Your task to perform on an android device: turn off wifi Image 0: 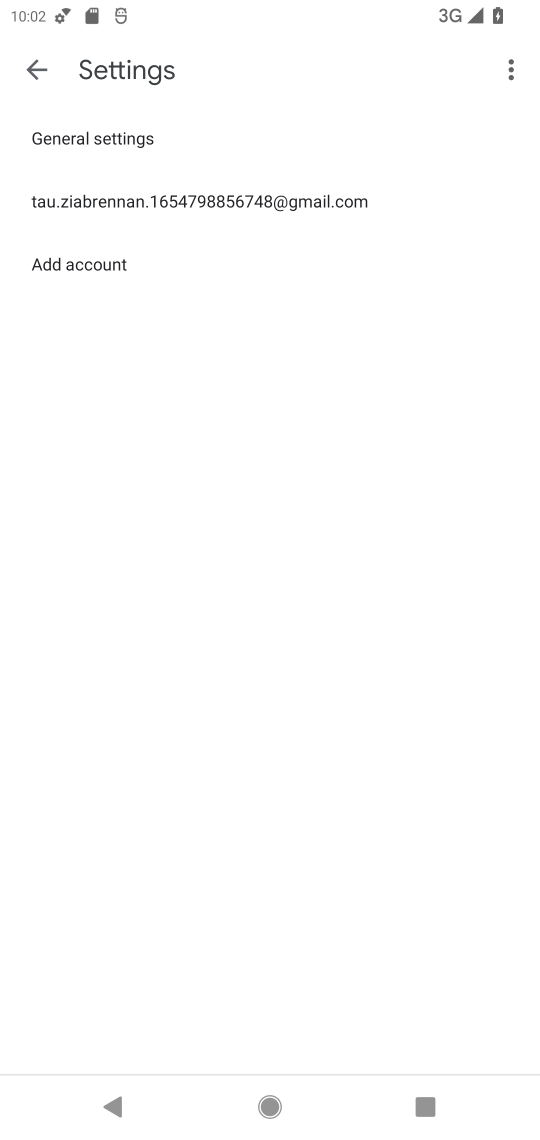
Step 0: drag from (236, 15) to (218, 1040)
Your task to perform on an android device: turn off wifi Image 1: 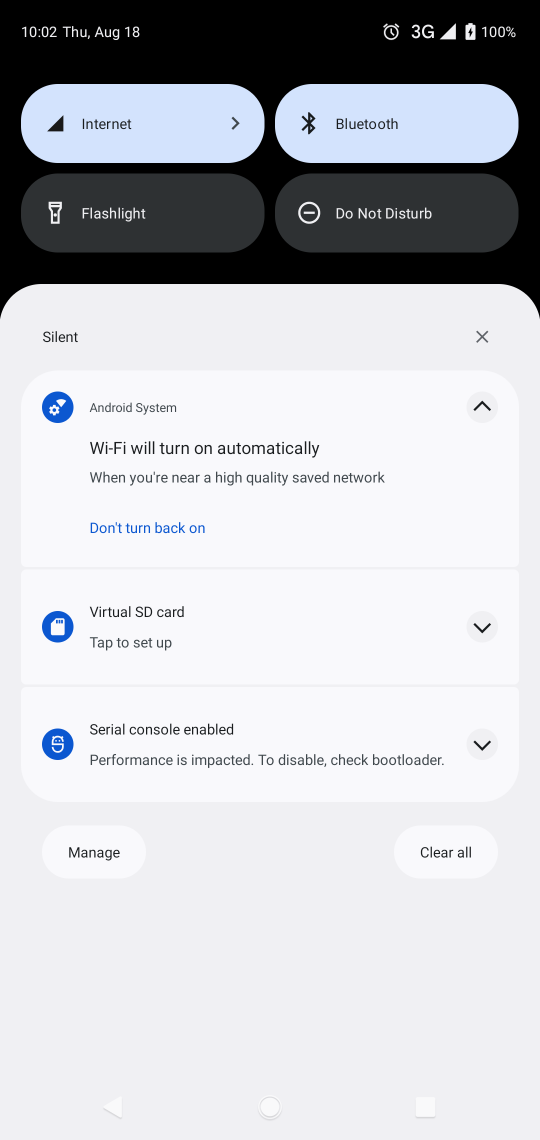
Step 1: click (207, 123)
Your task to perform on an android device: turn off wifi Image 2: 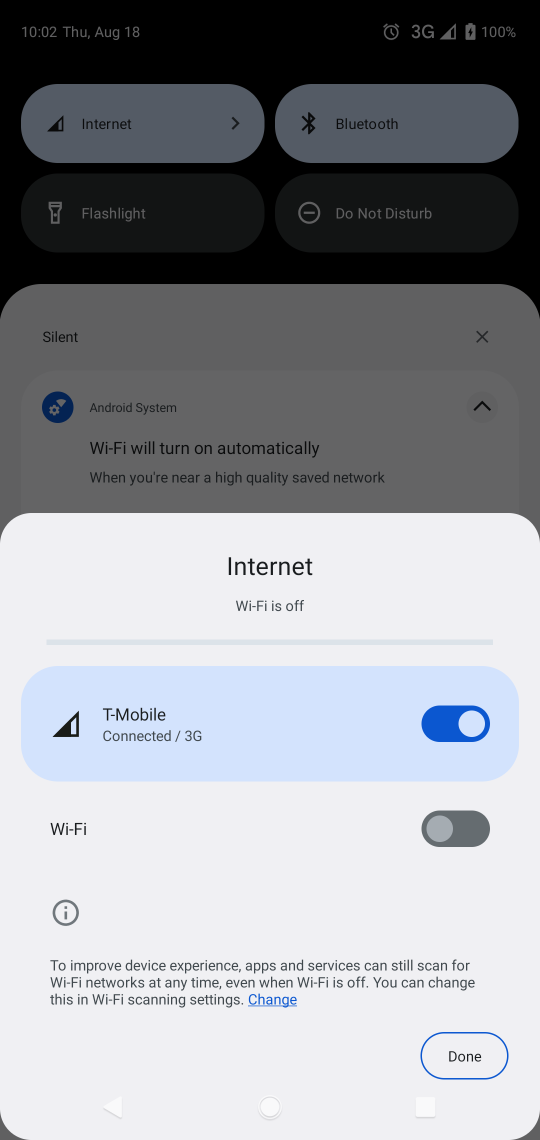
Step 2: task complete